Your task to perform on an android device: Go to privacy settings Image 0: 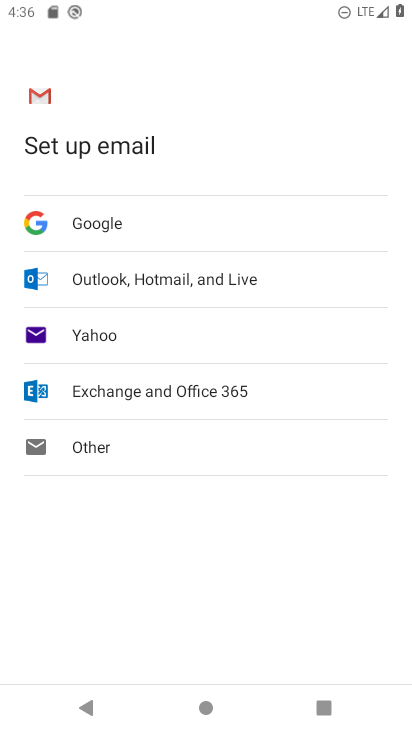
Step 0: press home button
Your task to perform on an android device: Go to privacy settings Image 1: 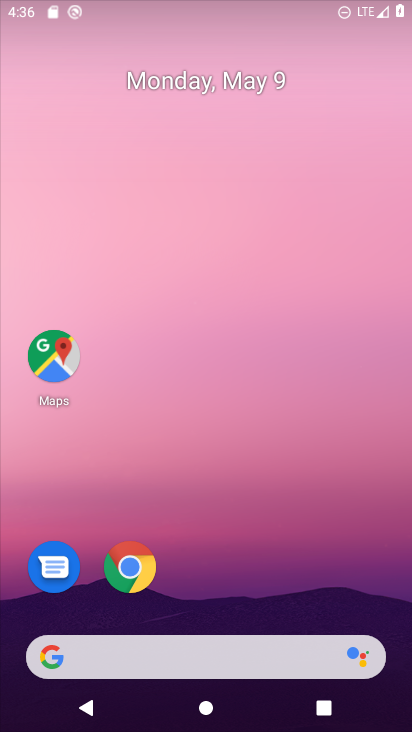
Step 1: drag from (237, 605) to (281, 63)
Your task to perform on an android device: Go to privacy settings Image 2: 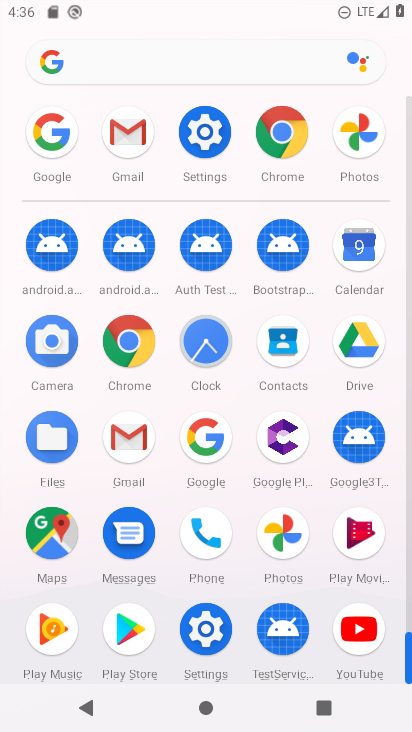
Step 2: click (206, 135)
Your task to perform on an android device: Go to privacy settings Image 3: 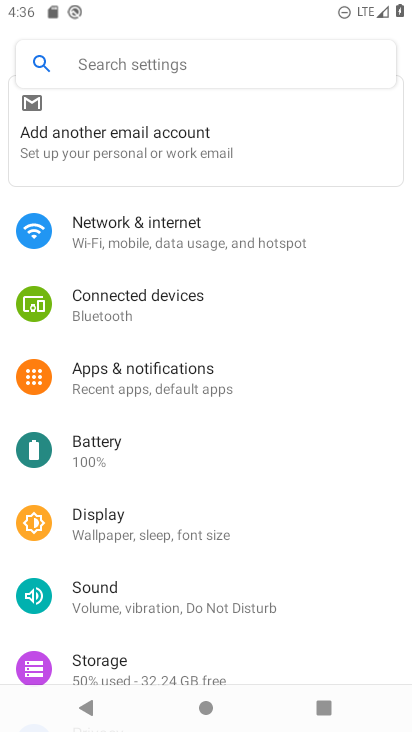
Step 3: drag from (291, 608) to (304, 238)
Your task to perform on an android device: Go to privacy settings Image 4: 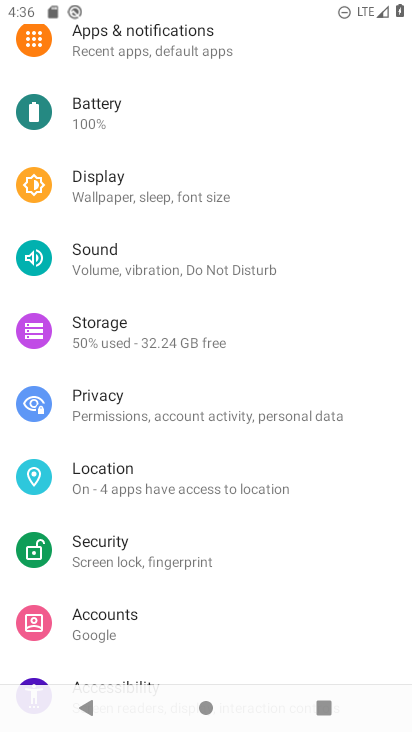
Step 4: click (200, 410)
Your task to perform on an android device: Go to privacy settings Image 5: 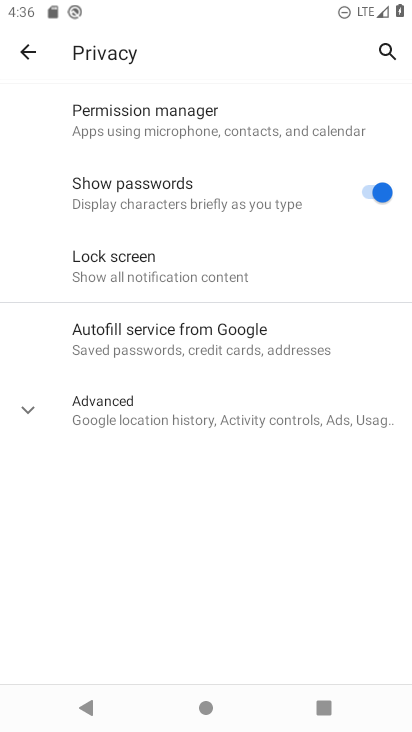
Step 5: task complete